Your task to perform on an android device: What's the weather today? Image 0: 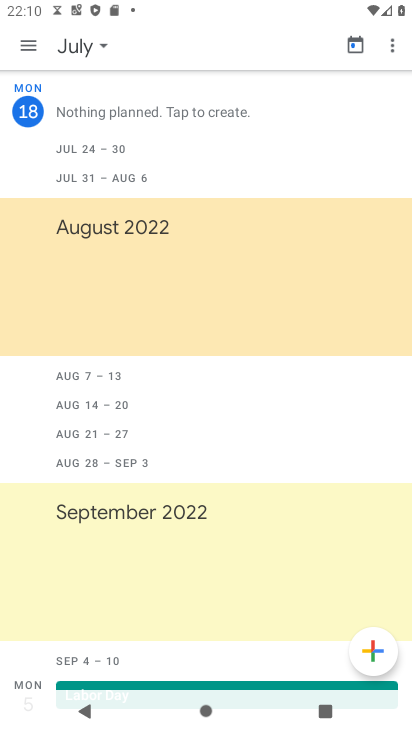
Step 0: press home button
Your task to perform on an android device: What's the weather today? Image 1: 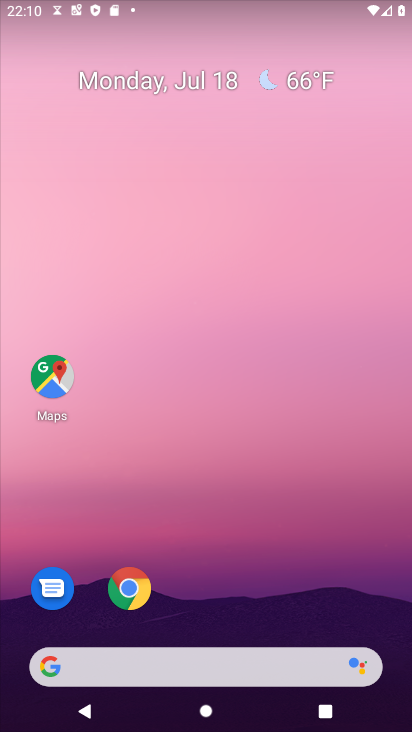
Step 1: click (172, 665)
Your task to perform on an android device: What's the weather today? Image 2: 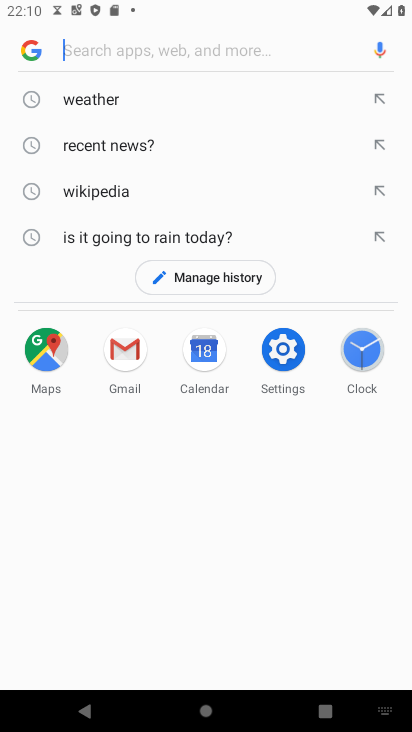
Step 2: click (110, 99)
Your task to perform on an android device: What's the weather today? Image 3: 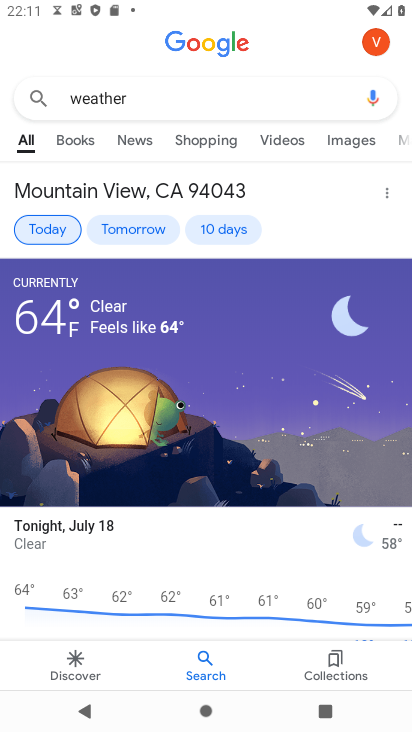
Step 3: task complete